Your task to perform on an android device: Search for pizza restaurants on Maps Image 0: 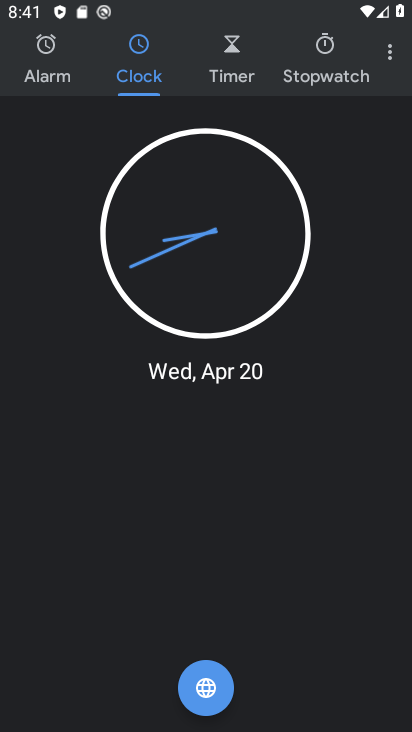
Step 0: press home button
Your task to perform on an android device: Search for pizza restaurants on Maps Image 1: 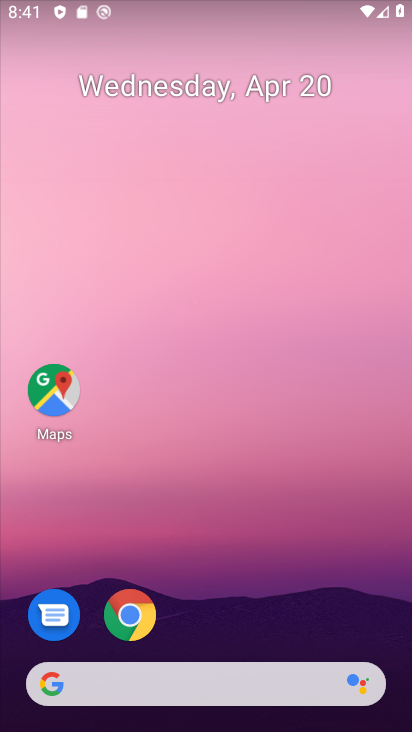
Step 1: click (56, 390)
Your task to perform on an android device: Search for pizza restaurants on Maps Image 2: 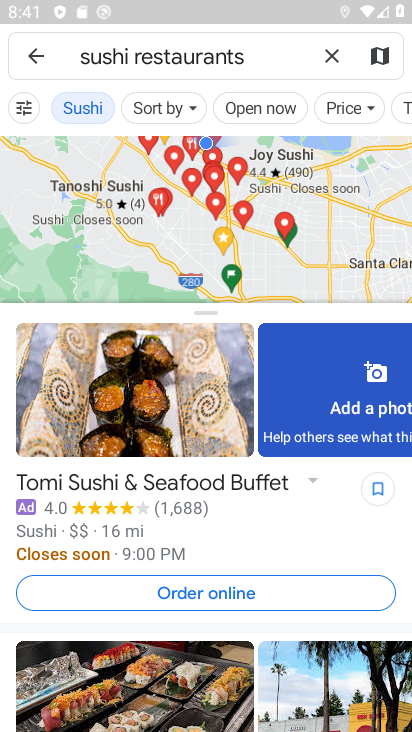
Step 2: click (335, 55)
Your task to perform on an android device: Search for pizza restaurants on Maps Image 3: 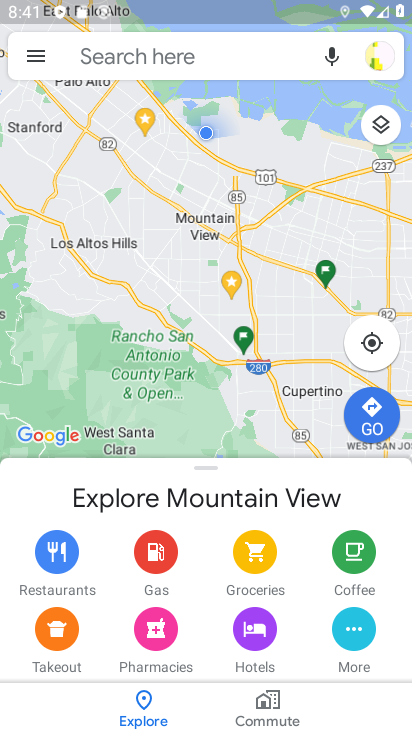
Step 3: click (201, 60)
Your task to perform on an android device: Search for pizza restaurants on Maps Image 4: 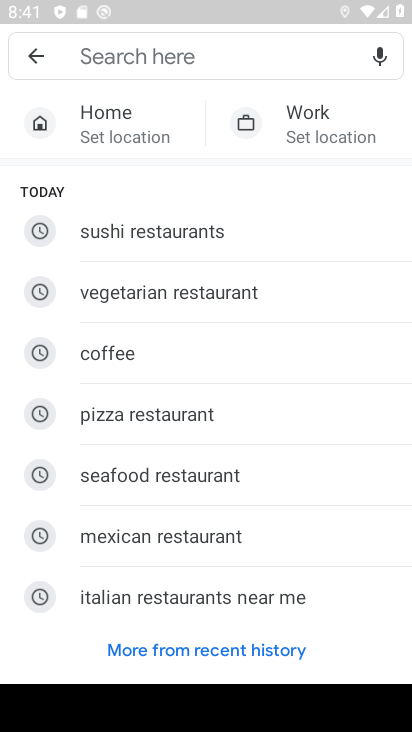
Step 4: type "pizza restaurants"
Your task to perform on an android device: Search for pizza restaurants on Maps Image 5: 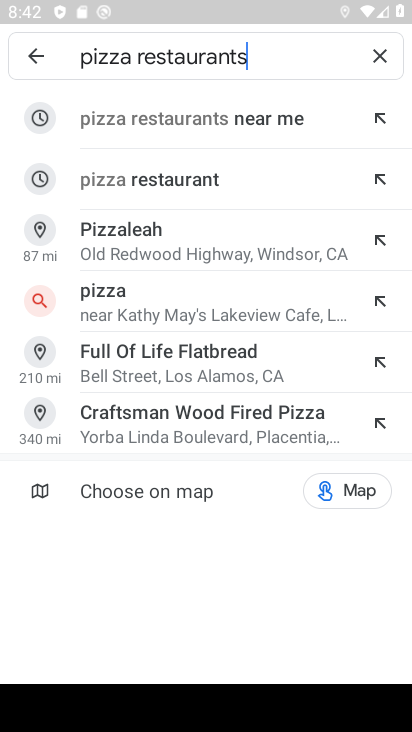
Step 5: click (192, 181)
Your task to perform on an android device: Search for pizza restaurants on Maps Image 6: 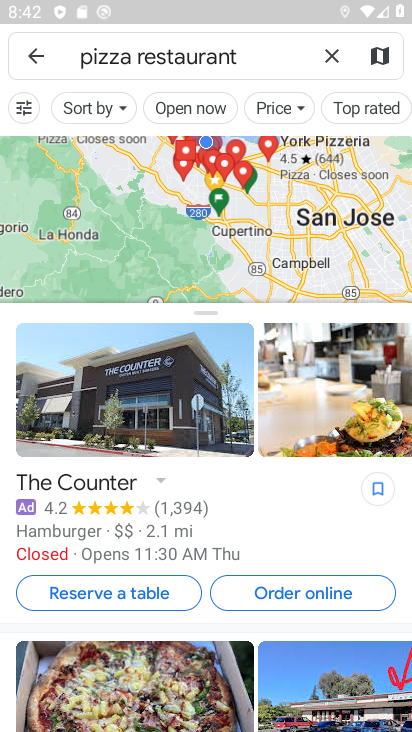
Step 6: task complete